Your task to perform on an android device: open chrome privacy settings Image 0: 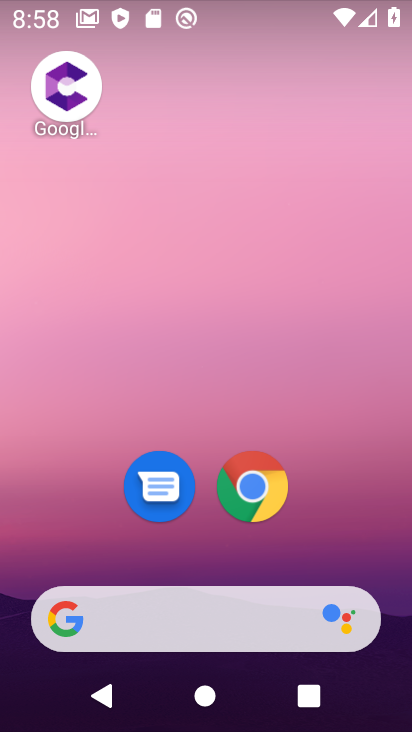
Step 0: click (257, 470)
Your task to perform on an android device: open chrome privacy settings Image 1: 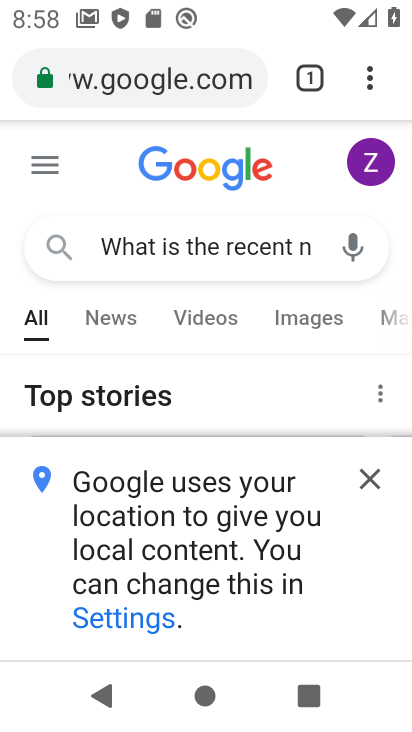
Step 1: click (368, 74)
Your task to perform on an android device: open chrome privacy settings Image 2: 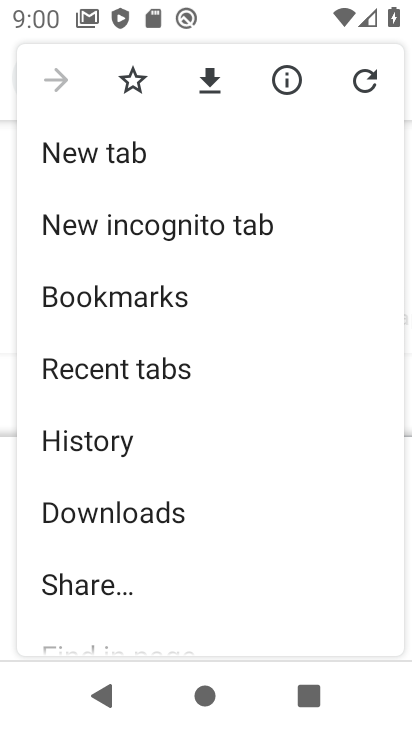
Step 2: drag from (249, 527) to (254, 245)
Your task to perform on an android device: open chrome privacy settings Image 3: 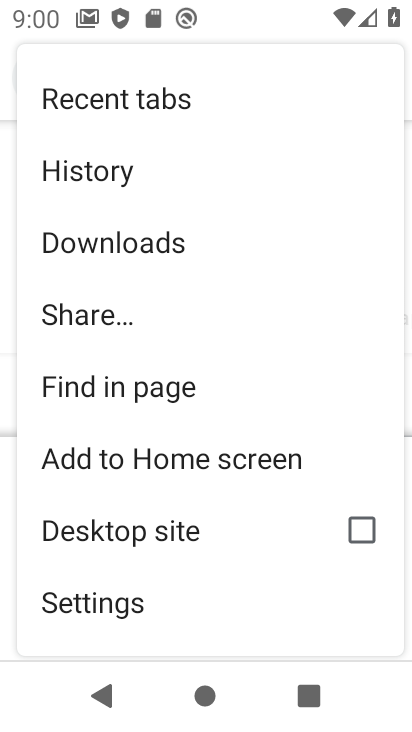
Step 3: click (136, 600)
Your task to perform on an android device: open chrome privacy settings Image 4: 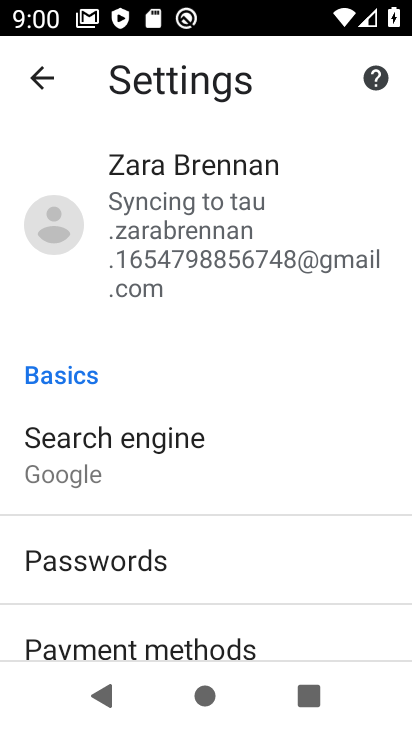
Step 4: task complete